Your task to perform on an android device: toggle notifications settings in the gmail app Image 0: 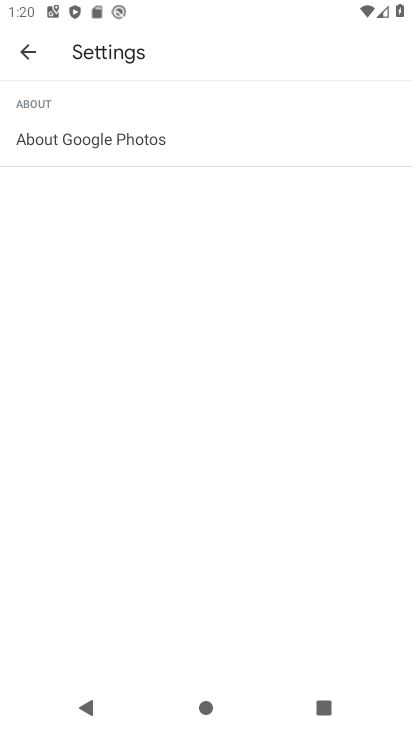
Step 0: press home button
Your task to perform on an android device: toggle notifications settings in the gmail app Image 1: 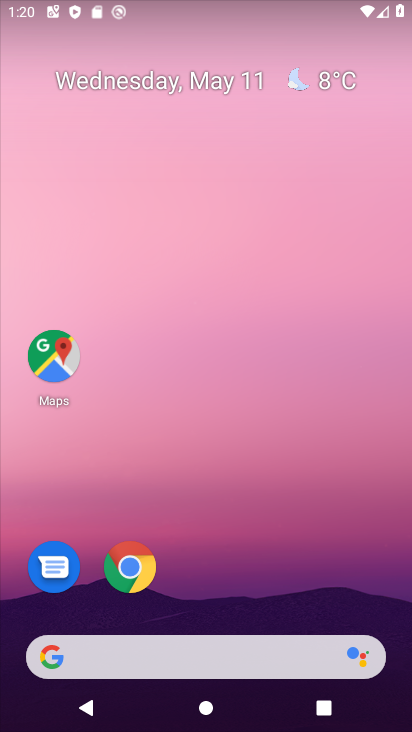
Step 1: drag from (290, 524) to (223, 173)
Your task to perform on an android device: toggle notifications settings in the gmail app Image 2: 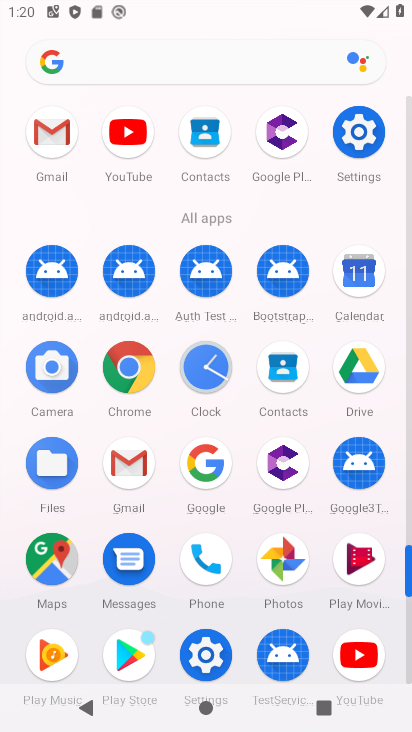
Step 2: click (129, 467)
Your task to perform on an android device: toggle notifications settings in the gmail app Image 3: 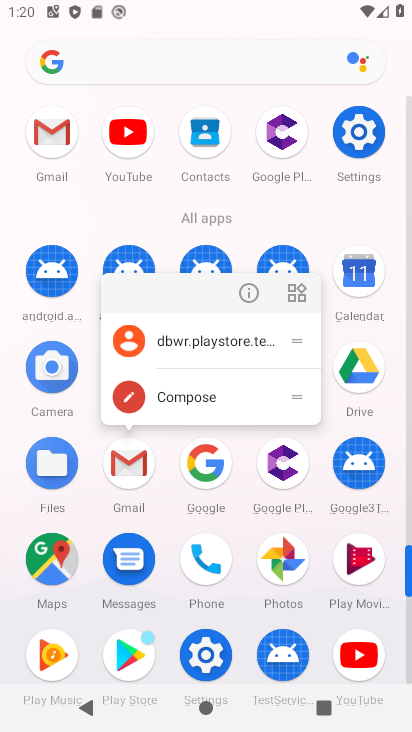
Step 3: click (249, 287)
Your task to perform on an android device: toggle notifications settings in the gmail app Image 4: 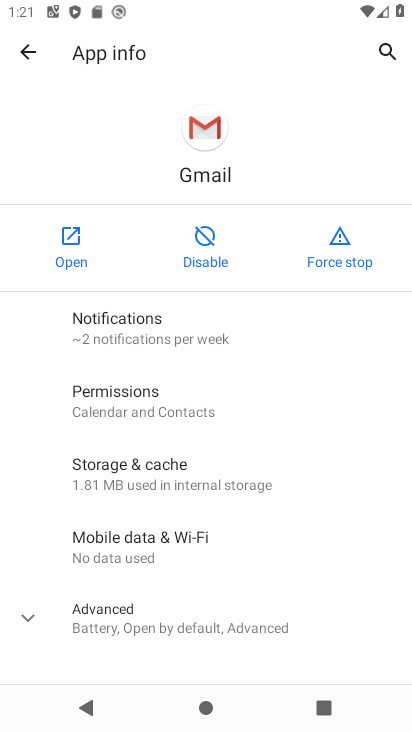
Step 4: click (243, 335)
Your task to perform on an android device: toggle notifications settings in the gmail app Image 5: 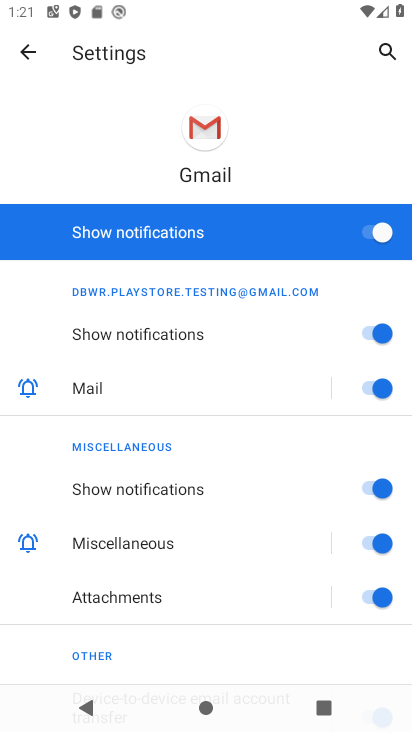
Step 5: click (372, 236)
Your task to perform on an android device: toggle notifications settings in the gmail app Image 6: 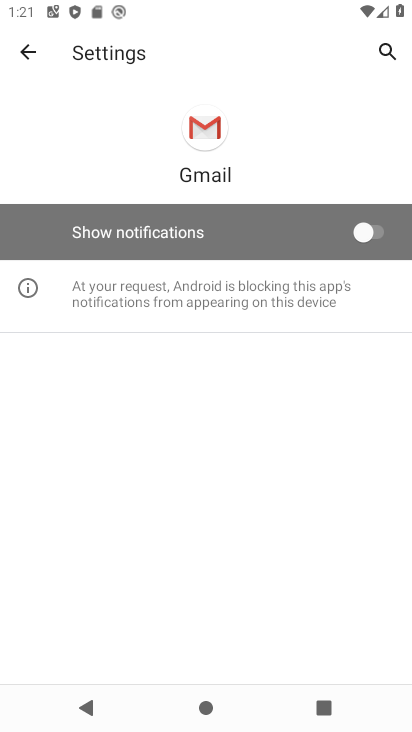
Step 6: task complete